Your task to perform on an android device: check android version Image 0: 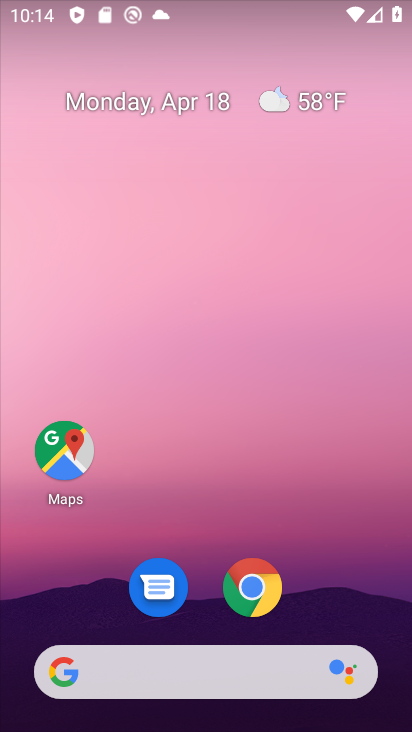
Step 0: drag from (268, 714) to (141, 137)
Your task to perform on an android device: check android version Image 1: 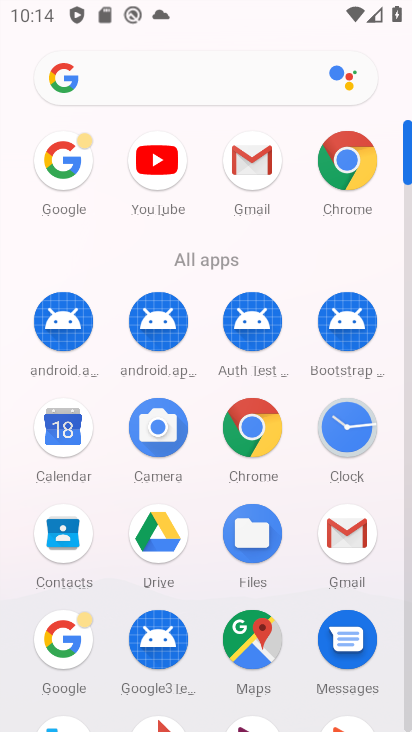
Step 1: drag from (400, 565) to (401, 674)
Your task to perform on an android device: check android version Image 2: 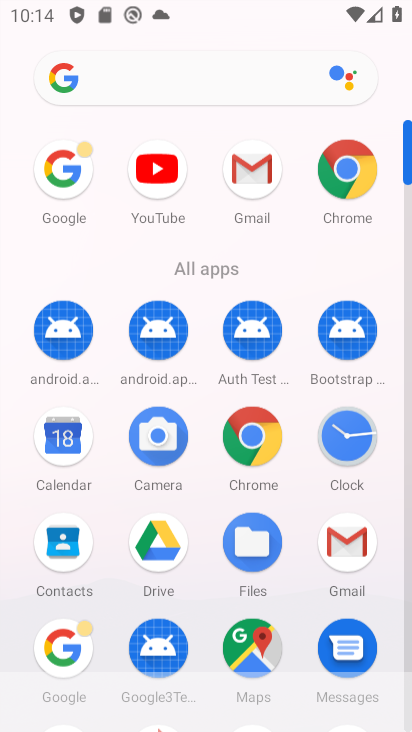
Step 2: click (382, 423)
Your task to perform on an android device: check android version Image 3: 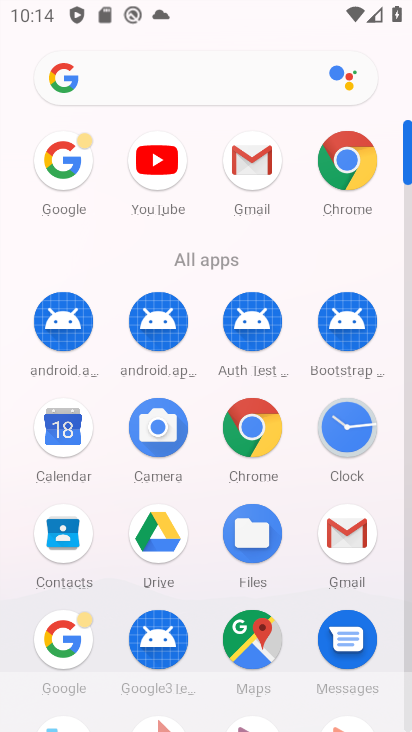
Step 3: drag from (398, 535) to (363, 160)
Your task to perform on an android device: check android version Image 4: 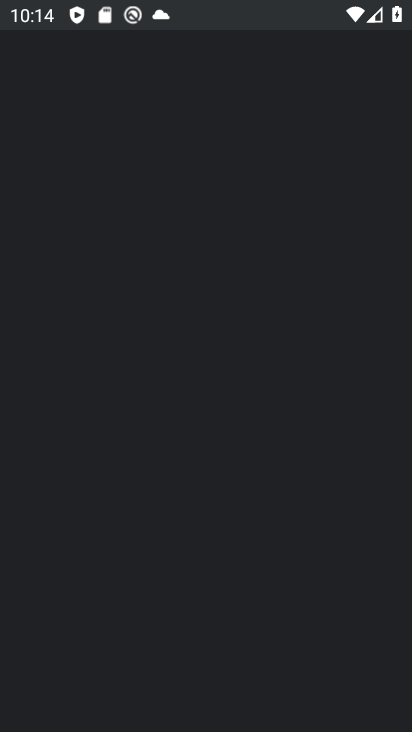
Step 4: drag from (377, 579) to (364, 276)
Your task to perform on an android device: check android version Image 5: 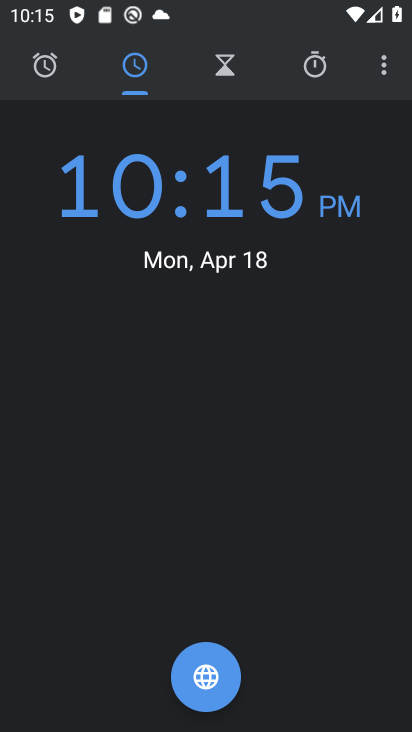
Step 5: press home button
Your task to perform on an android device: check android version Image 6: 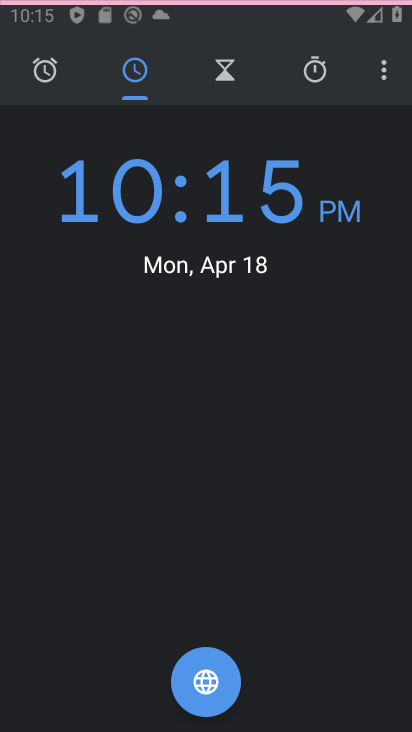
Step 6: press home button
Your task to perform on an android device: check android version Image 7: 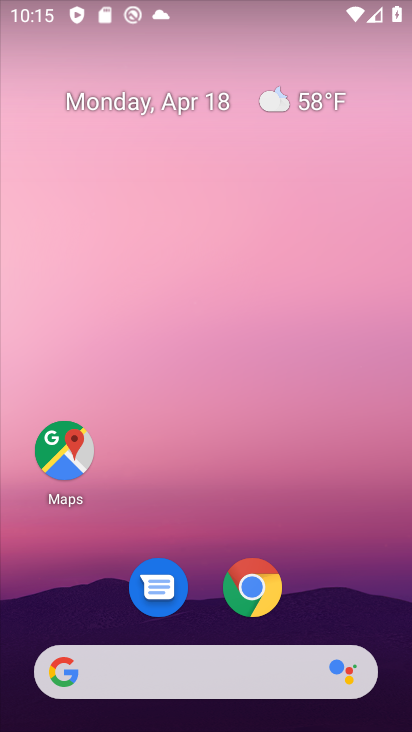
Step 7: drag from (260, 687) to (194, 186)
Your task to perform on an android device: check android version Image 8: 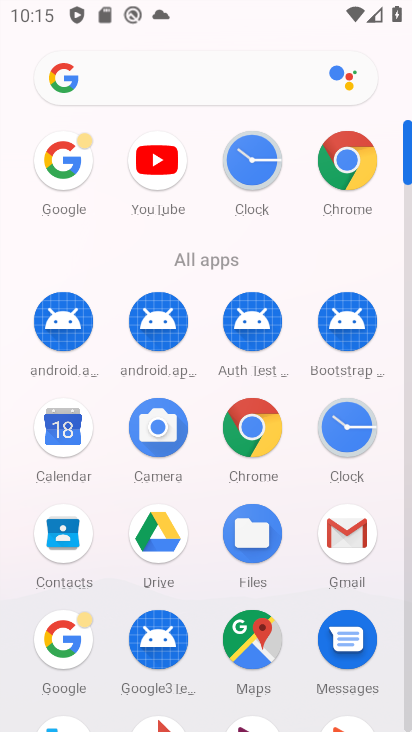
Step 8: click (349, 166)
Your task to perform on an android device: check android version Image 9: 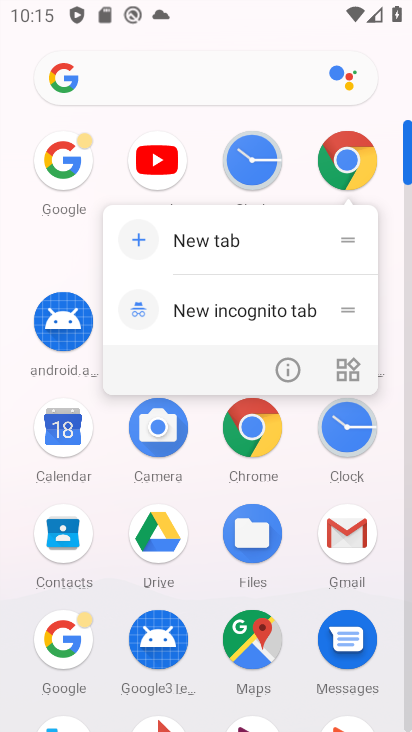
Step 9: click (349, 166)
Your task to perform on an android device: check android version Image 10: 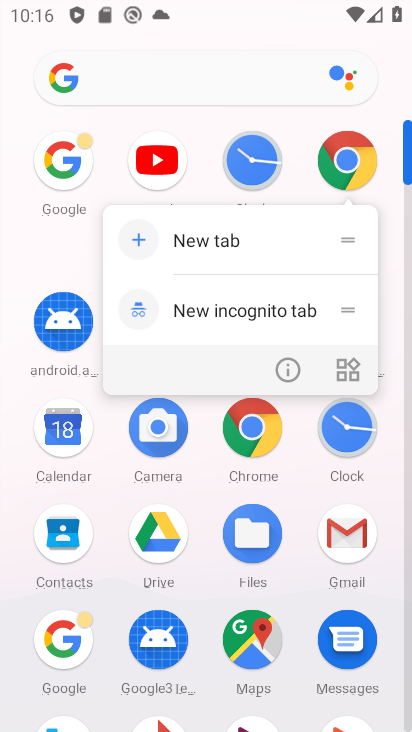
Step 10: drag from (403, 559) to (402, 683)
Your task to perform on an android device: check android version Image 11: 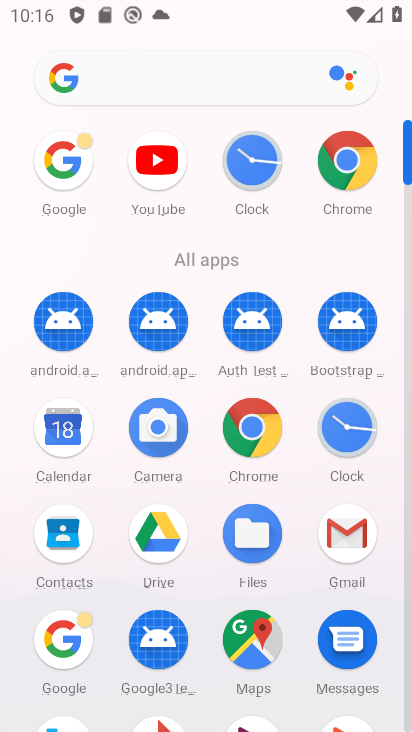
Step 11: click (395, 597)
Your task to perform on an android device: check android version Image 12: 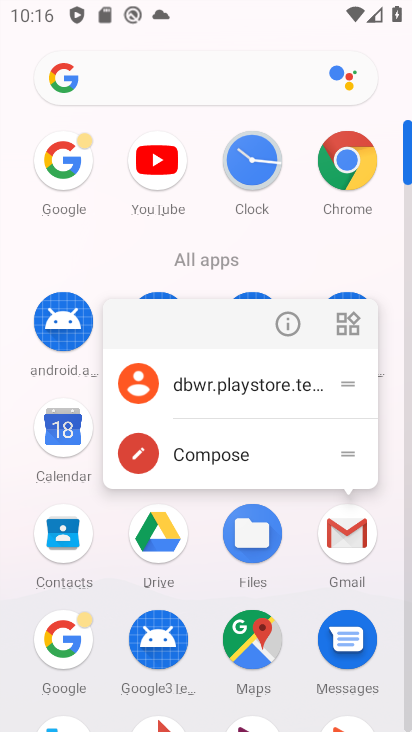
Step 12: drag from (406, 646) to (397, 679)
Your task to perform on an android device: check android version Image 13: 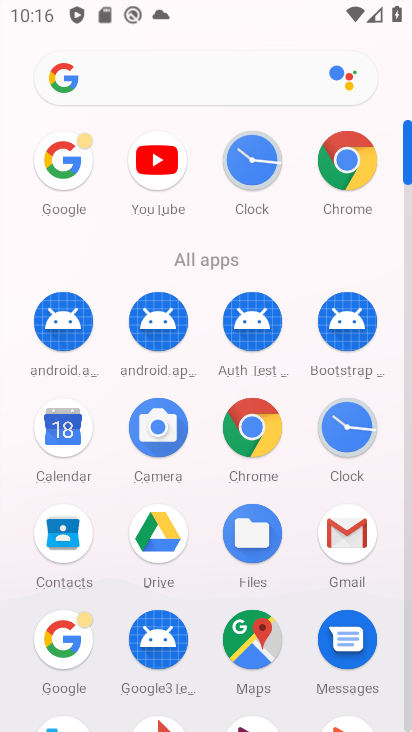
Step 13: drag from (404, 672) to (359, 294)
Your task to perform on an android device: check android version Image 14: 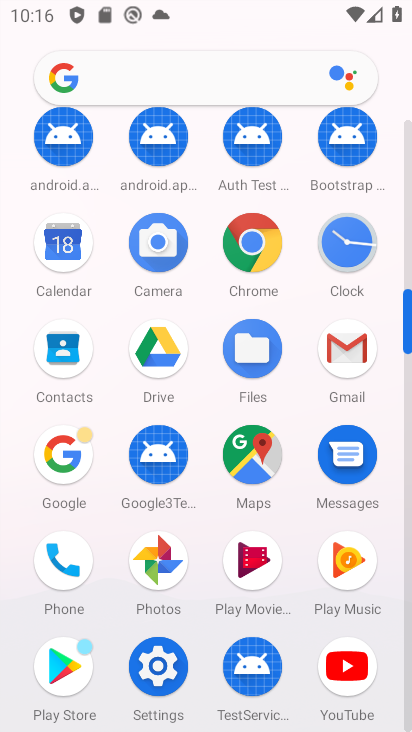
Step 14: click (155, 667)
Your task to perform on an android device: check android version Image 15: 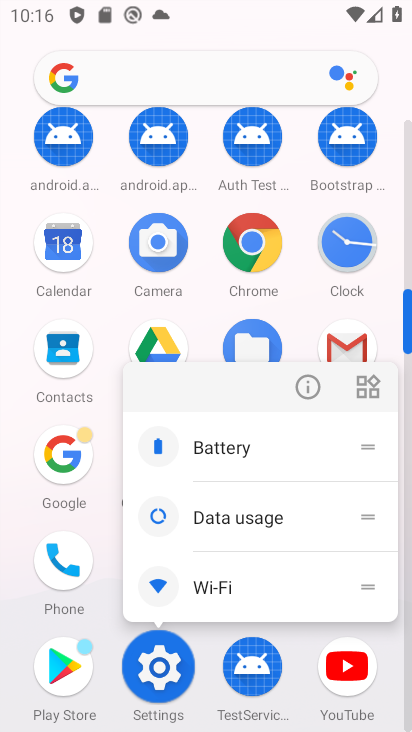
Step 15: click (155, 667)
Your task to perform on an android device: check android version Image 16: 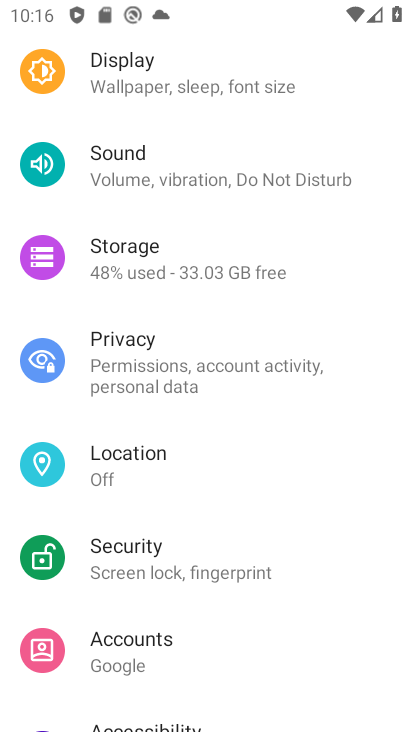
Step 16: drag from (244, 621) to (159, 208)
Your task to perform on an android device: check android version Image 17: 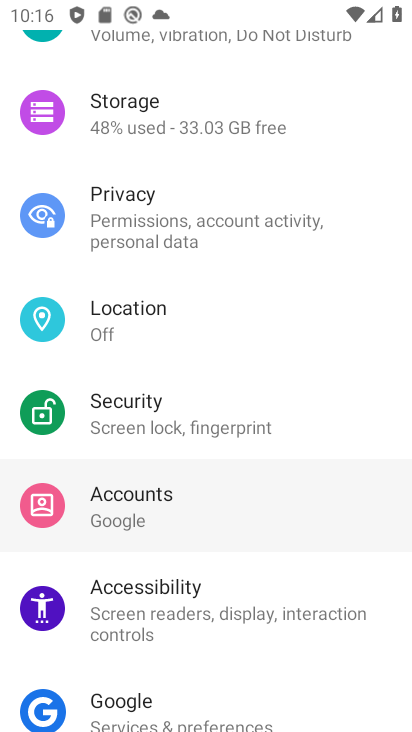
Step 17: drag from (185, 264) to (185, 199)
Your task to perform on an android device: check android version Image 18: 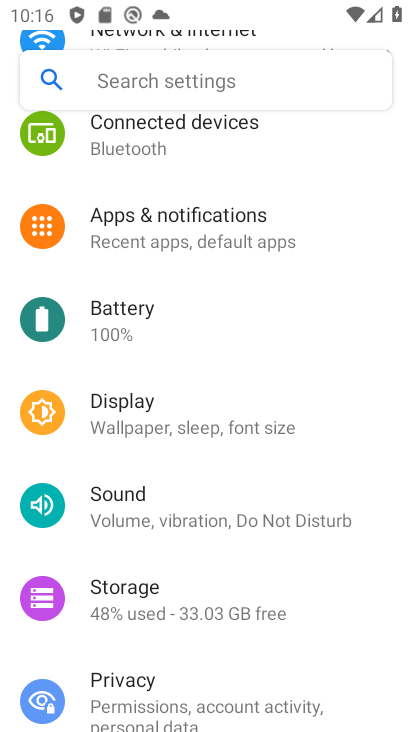
Step 18: drag from (208, 467) to (189, 25)
Your task to perform on an android device: check android version Image 19: 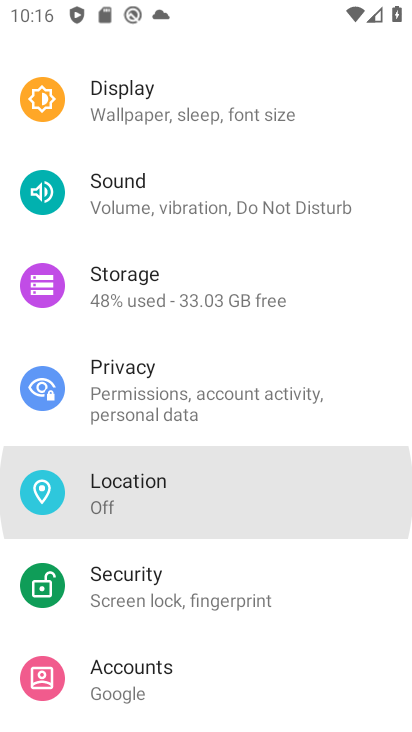
Step 19: drag from (206, 325) to (255, 85)
Your task to perform on an android device: check android version Image 20: 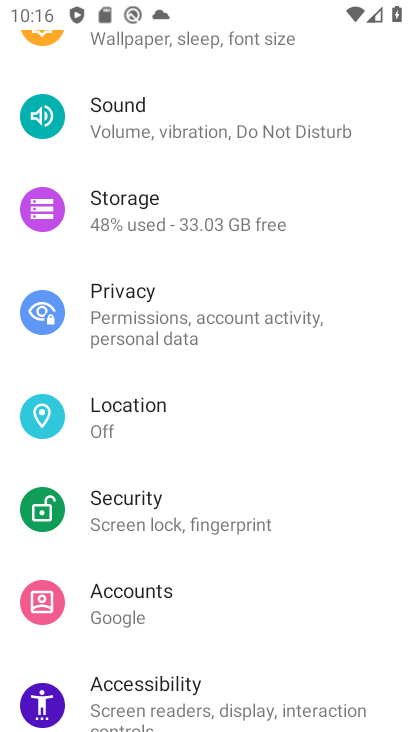
Step 20: drag from (259, 315) to (259, 159)
Your task to perform on an android device: check android version Image 21: 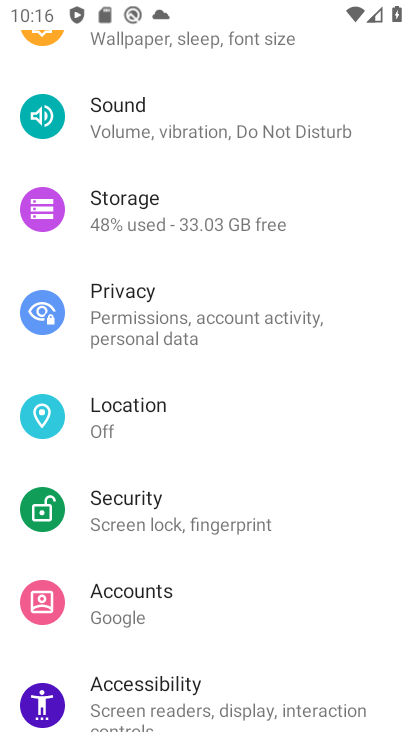
Step 21: drag from (324, 545) to (316, 154)
Your task to perform on an android device: check android version Image 22: 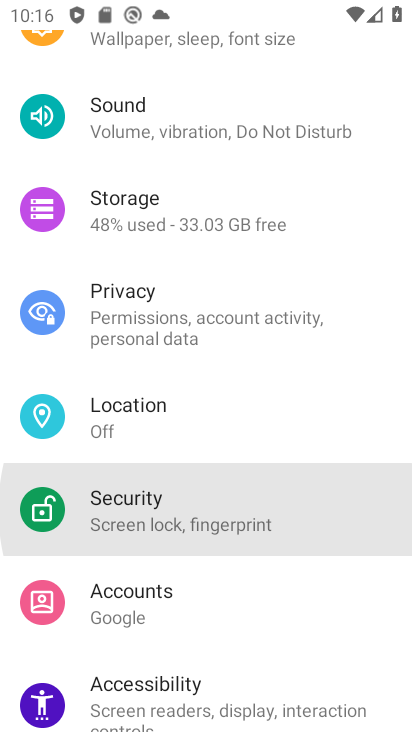
Step 22: drag from (331, 554) to (312, 154)
Your task to perform on an android device: check android version Image 23: 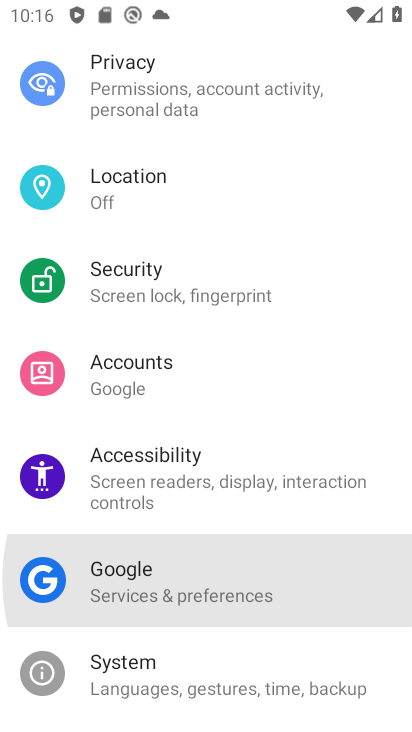
Step 23: drag from (326, 483) to (325, 85)
Your task to perform on an android device: check android version Image 24: 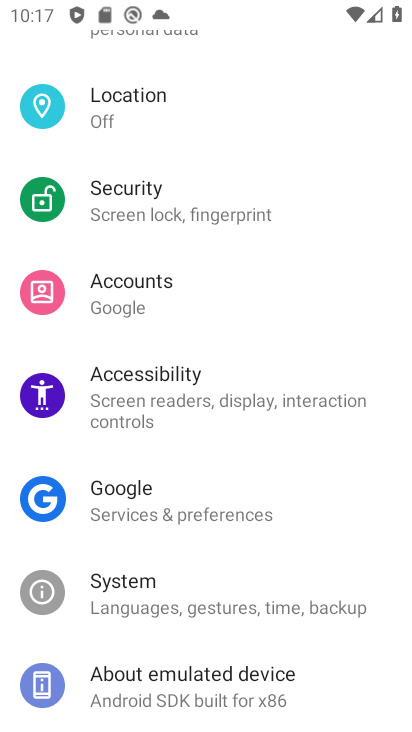
Step 24: click (204, 683)
Your task to perform on an android device: check android version Image 25: 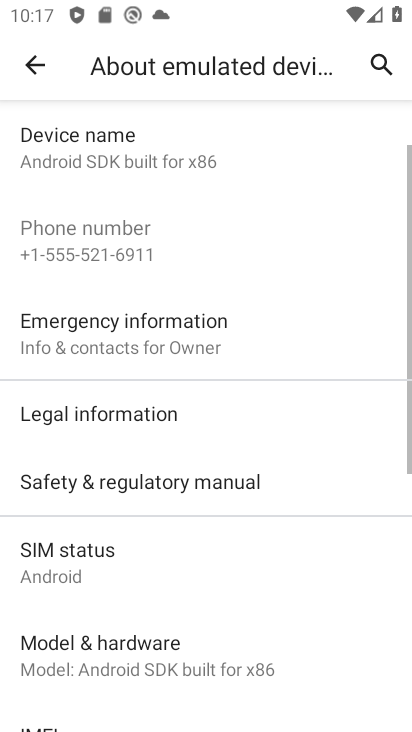
Step 25: task complete